Your task to perform on an android device: all mails in gmail Image 0: 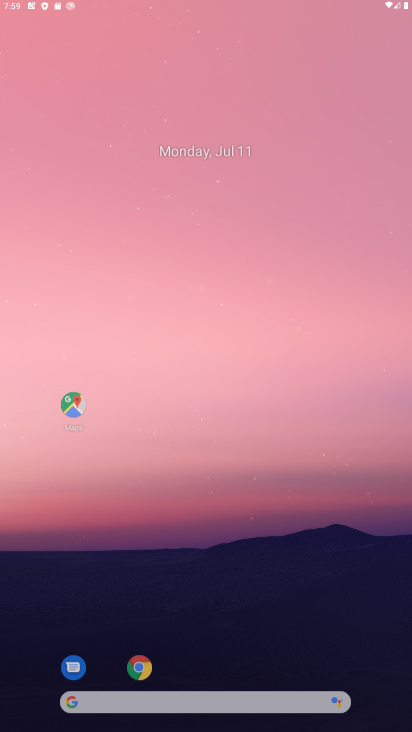
Step 0: drag from (217, 626) to (216, 1)
Your task to perform on an android device: all mails in gmail Image 1: 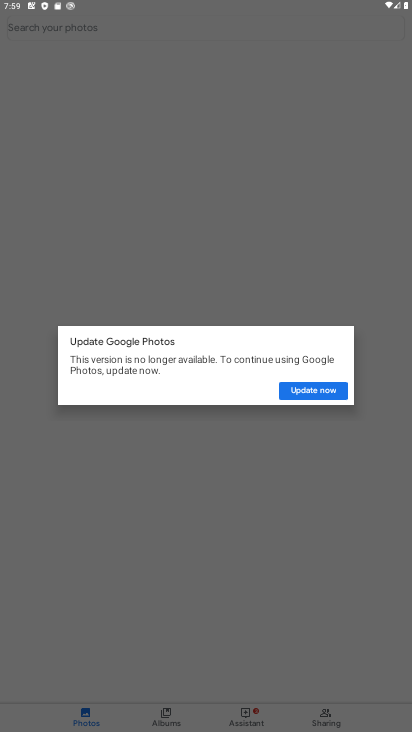
Step 1: press home button
Your task to perform on an android device: all mails in gmail Image 2: 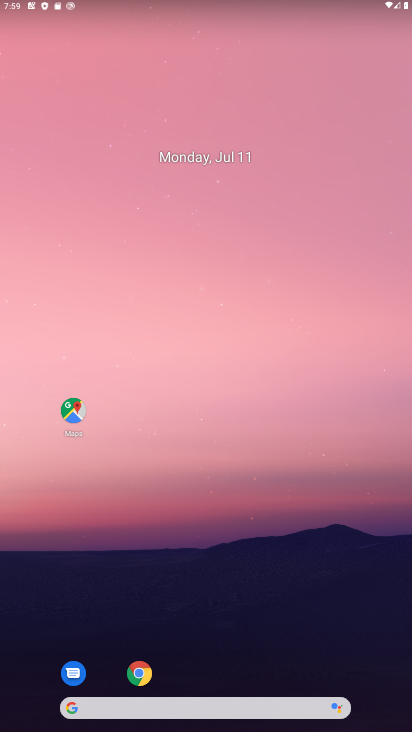
Step 2: drag from (217, 664) to (209, 7)
Your task to perform on an android device: all mails in gmail Image 3: 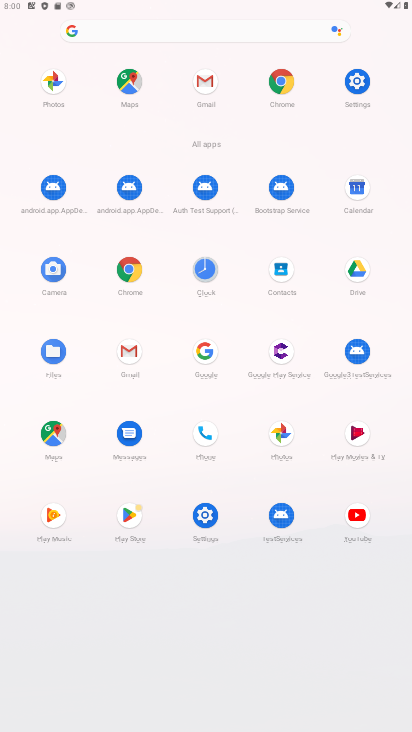
Step 3: click (129, 350)
Your task to perform on an android device: all mails in gmail Image 4: 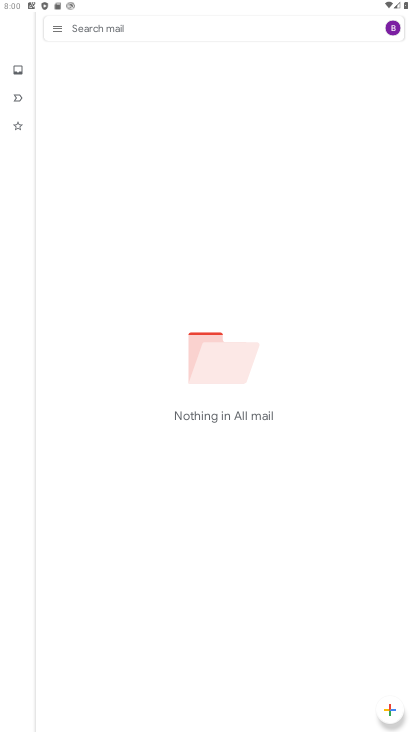
Step 4: task complete